Your task to perform on an android device: Open the web browser Image 0: 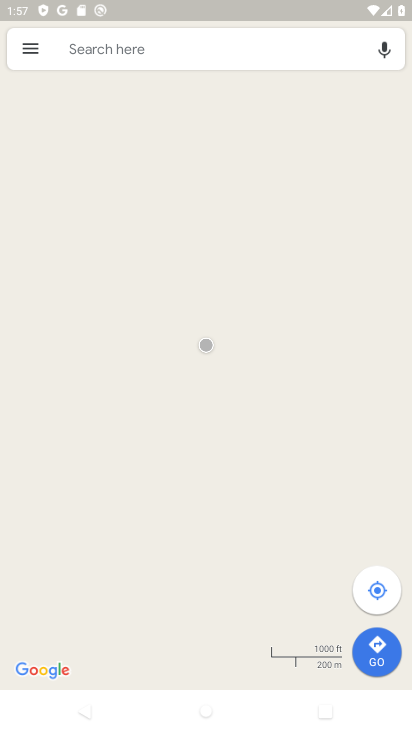
Step 0: press home button
Your task to perform on an android device: Open the web browser Image 1: 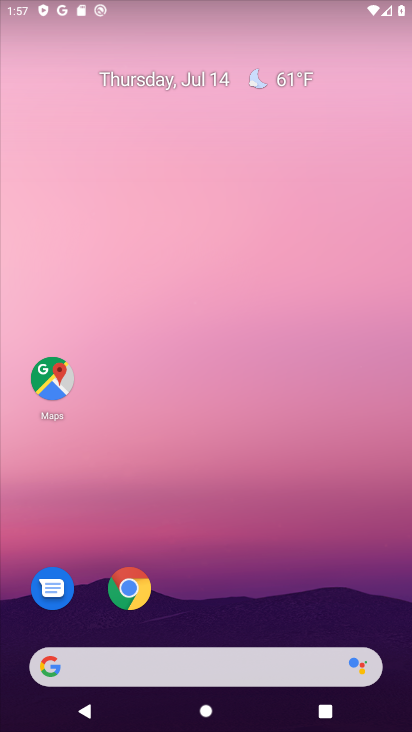
Step 1: drag from (199, 597) to (253, 109)
Your task to perform on an android device: Open the web browser Image 2: 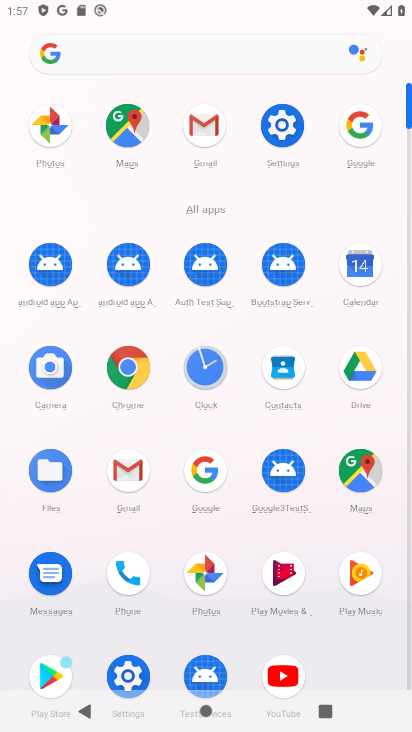
Step 2: click (209, 469)
Your task to perform on an android device: Open the web browser Image 3: 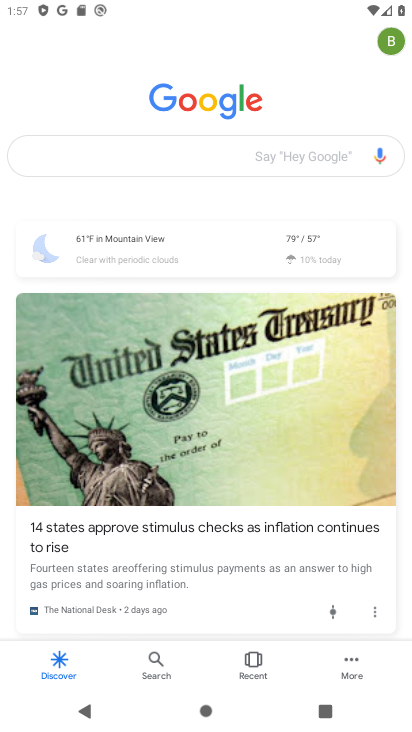
Step 3: task complete